Your task to perform on an android device: change the clock display to digital Image 0: 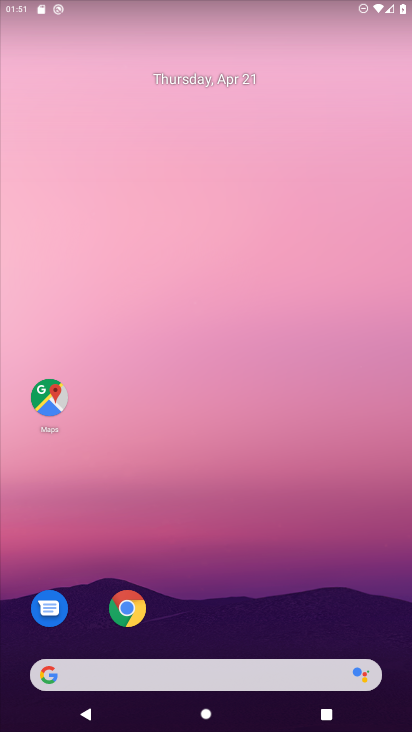
Step 0: drag from (263, 605) to (274, 257)
Your task to perform on an android device: change the clock display to digital Image 1: 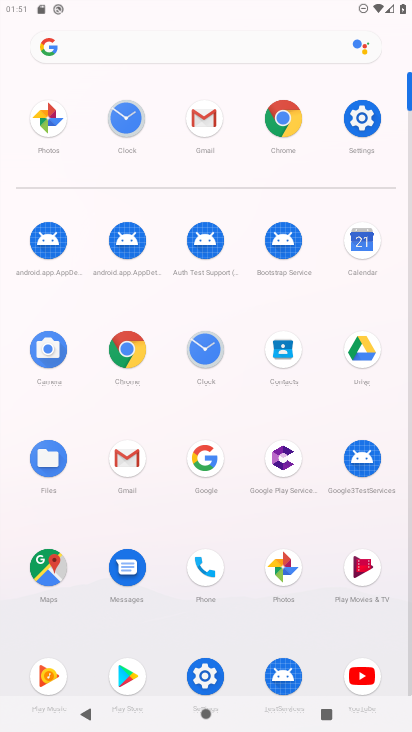
Step 1: click (203, 353)
Your task to perform on an android device: change the clock display to digital Image 2: 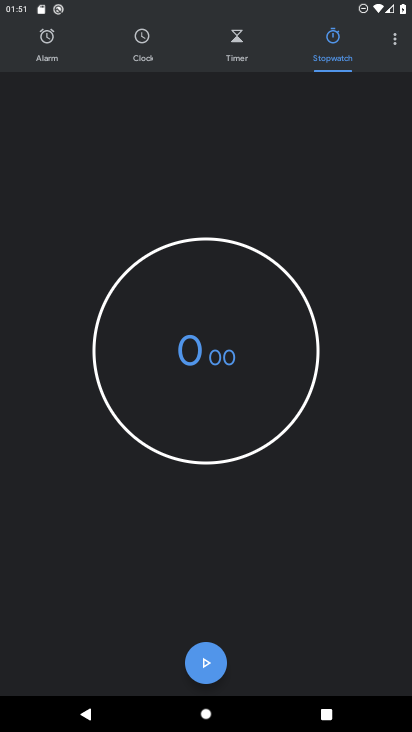
Step 2: click (391, 40)
Your task to perform on an android device: change the clock display to digital Image 3: 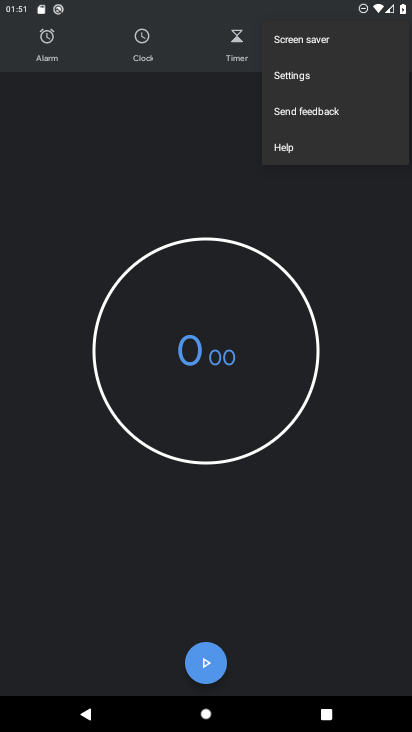
Step 3: click (317, 71)
Your task to perform on an android device: change the clock display to digital Image 4: 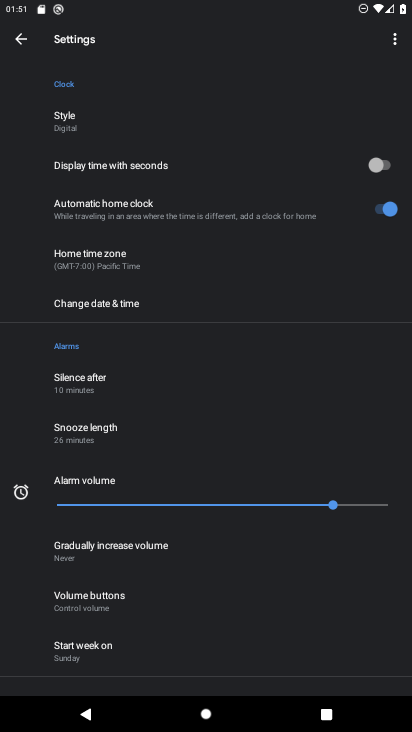
Step 4: click (317, 71)
Your task to perform on an android device: change the clock display to digital Image 5: 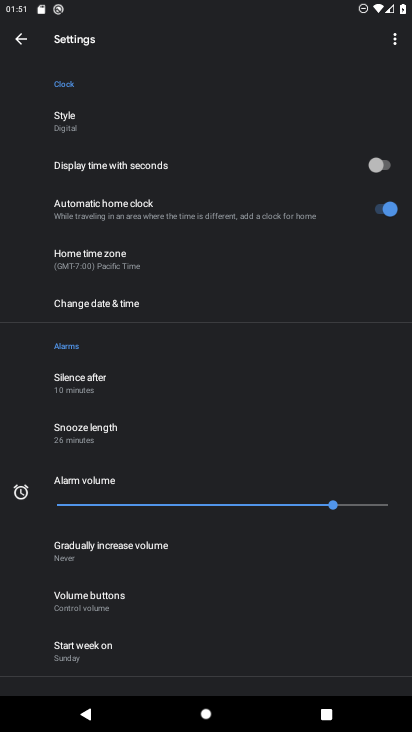
Step 5: click (90, 111)
Your task to perform on an android device: change the clock display to digital Image 6: 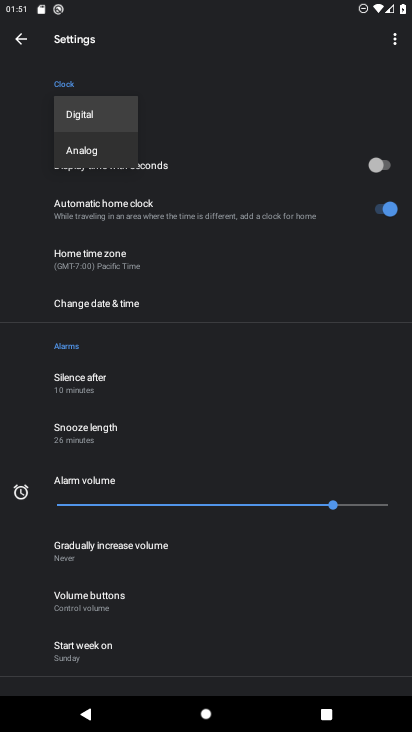
Step 6: click (90, 111)
Your task to perform on an android device: change the clock display to digital Image 7: 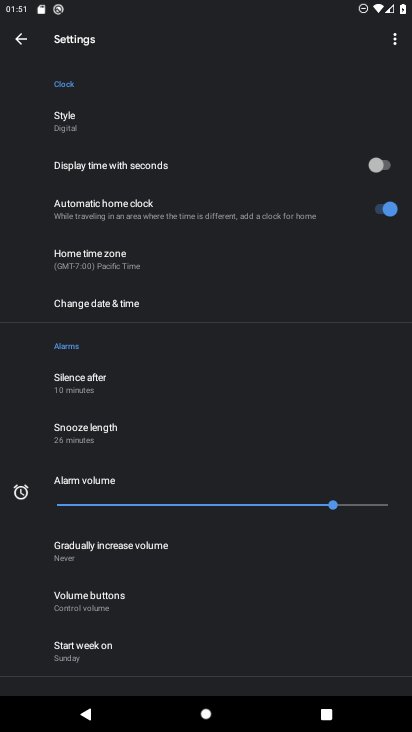
Step 7: task complete